Your task to perform on an android device: Go to internet settings Image 0: 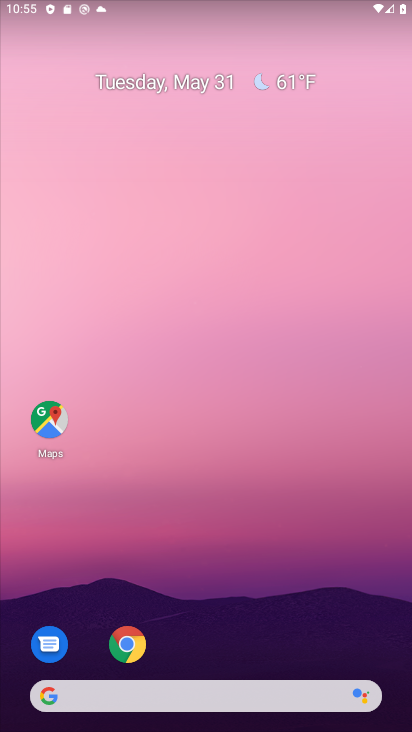
Step 0: drag from (262, 595) to (290, 176)
Your task to perform on an android device: Go to internet settings Image 1: 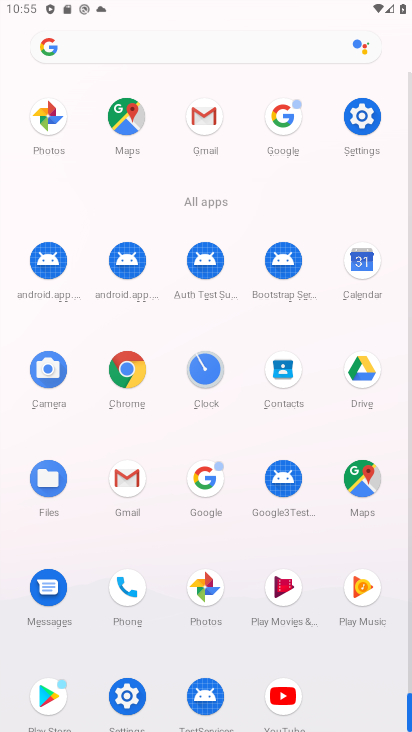
Step 1: click (373, 113)
Your task to perform on an android device: Go to internet settings Image 2: 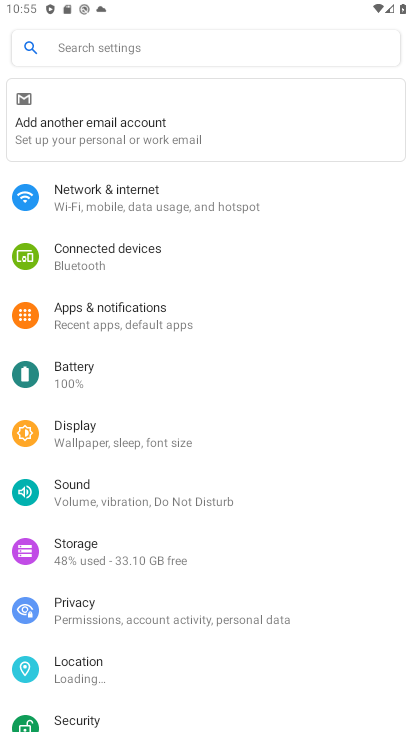
Step 2: click (175, 191)
Your task to perform on an android device: Go to internet settings Image 3: 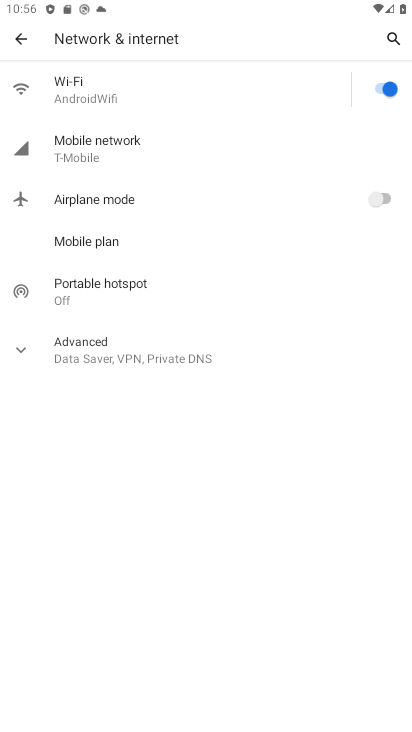
Step 3: task complete